Your task to perform on an android device: Open Yahoo.com Image 0: 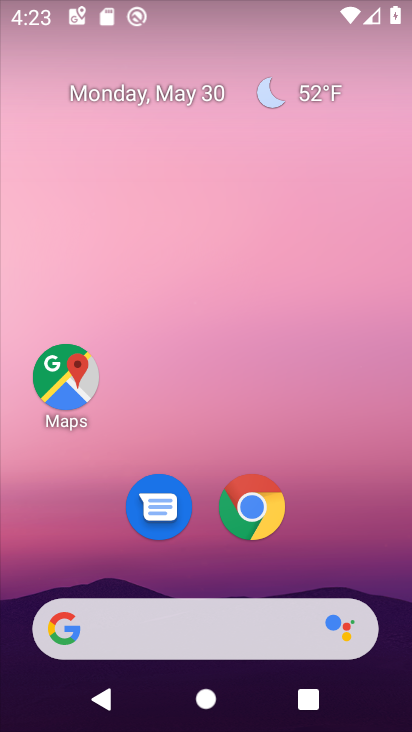
Step 0: drag from (322, 547) to (344, 71)
Your task to perform on an android device: Open Yahoo.com Image 1: 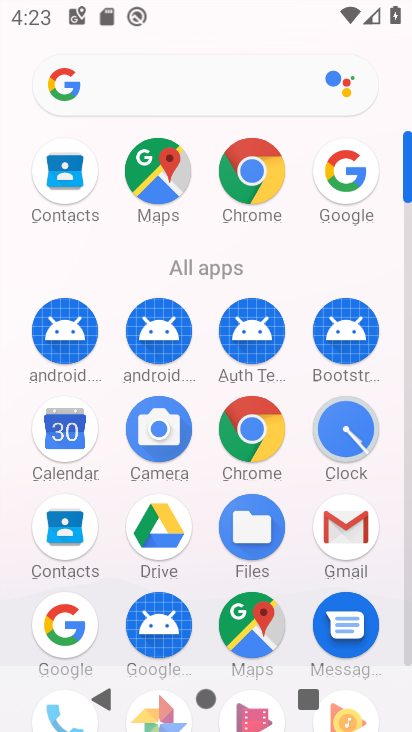
Step 1: click (258, 437)
Your task to perform on an android device: Open Yahoo.com Image 2: 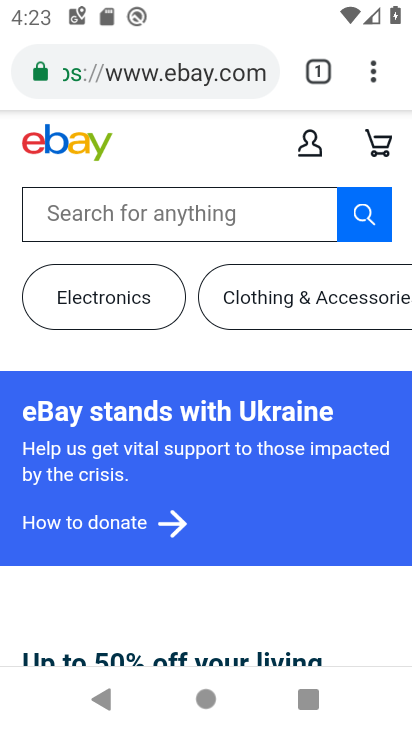
Step 2: click (176, 70)
Your task to perform on an android device: Open Yahoo.com Image 3: 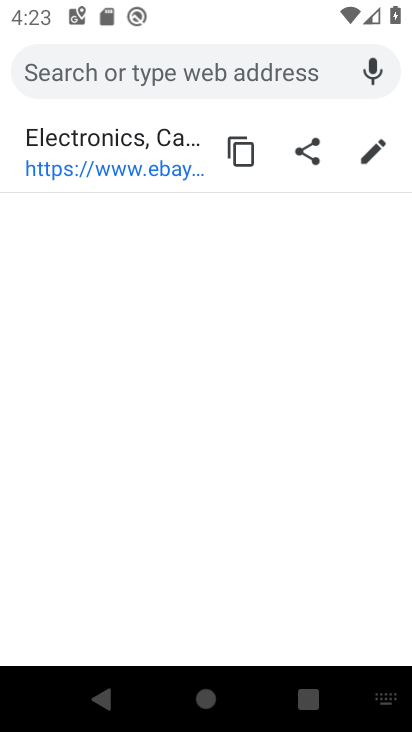
Step 3: type "Yahoo.com"
Your task to perform on an android device: Open Yahoo.com Image 4: 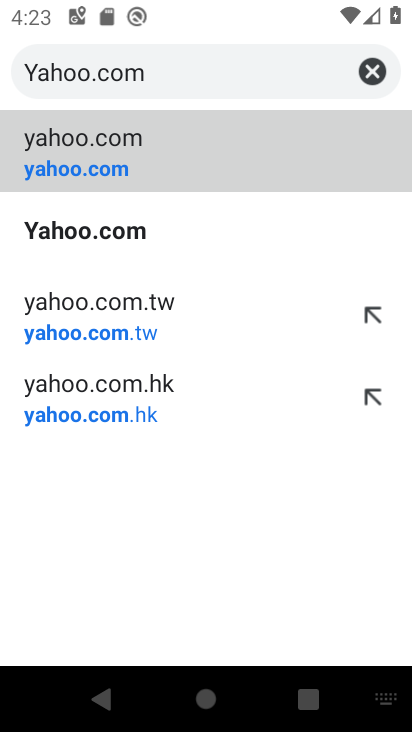
Step 4: click (111, 163)
Your task to perform on an android device: Open Yahoo.com Image 5: 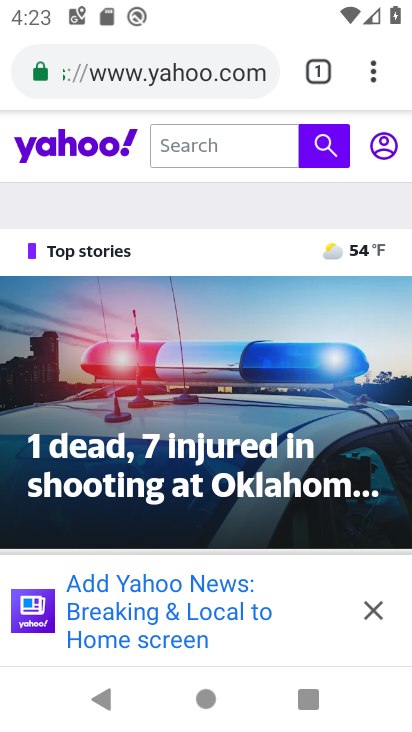
Step 5: task complete